Your task to perform on an android device: Go to network settings Image 0: 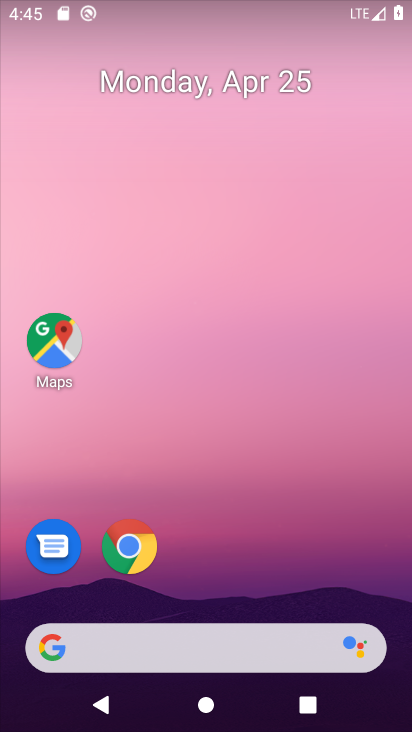
Step 0: drag from (305, 582) to (336, 102)
Your task to perform on an android device: Go to network settings Image 1: 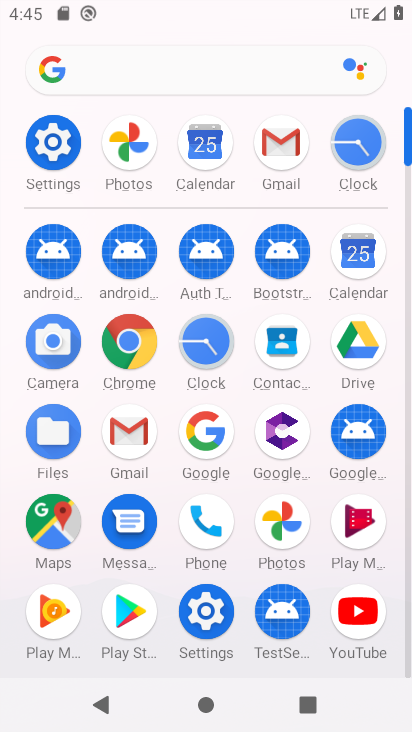
Step 1: click (49, 151)
Your task to perform on an android device: Go to network settings Image 2: 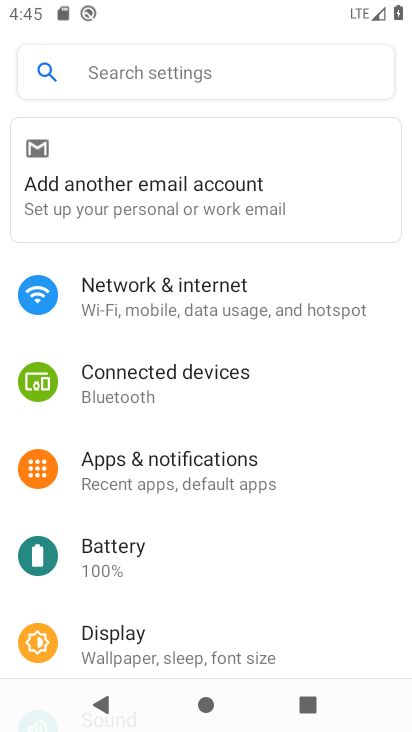
Step 2: click (149, 325)
Your task to perform on an android device: Go to network settings Image 3: 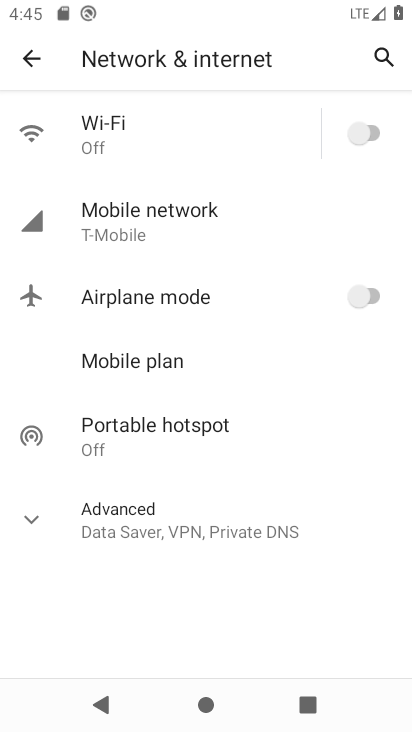
Step 3: click (63, 233)
Your task to perform on an android device: Go to network settings Image 4: 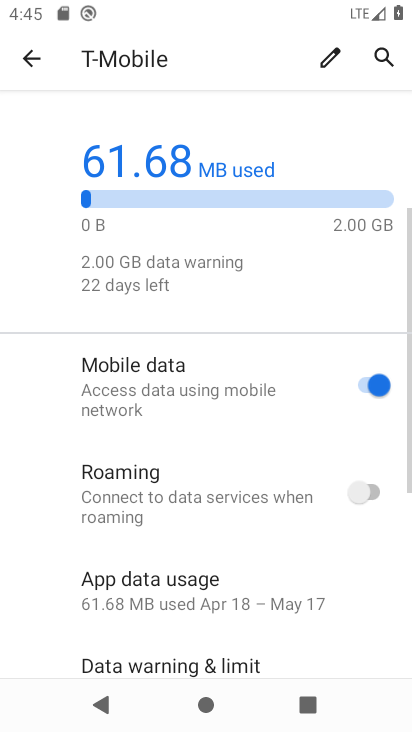
Step 4: task complete